Your task to perform on an android device: View the shopping cart on amazon. Image 0: 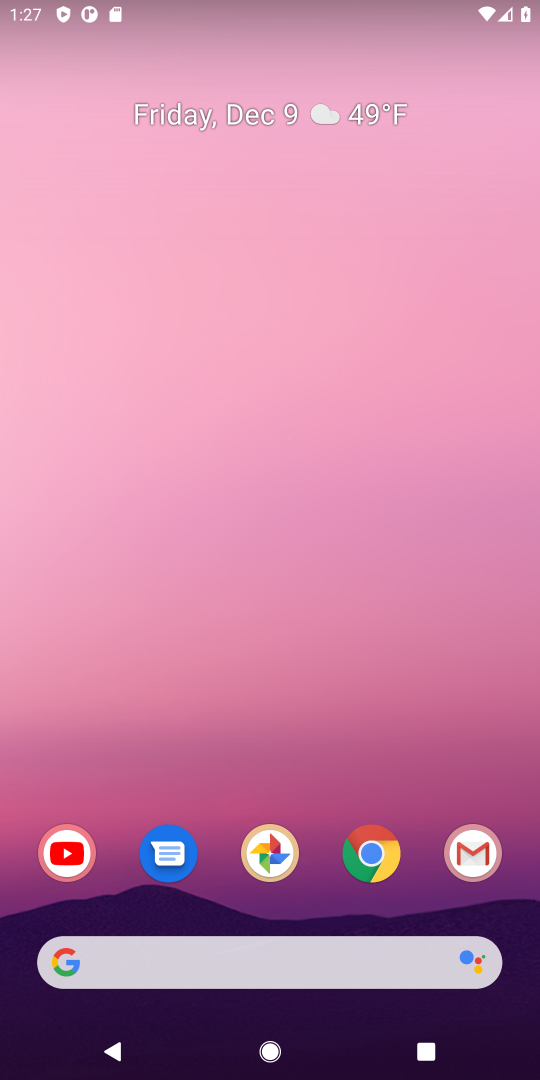
Step 0: drag from (229, 953) to (310, 378)
Your task to perform on an android device: View the shopping cart on amazon. Image 1: 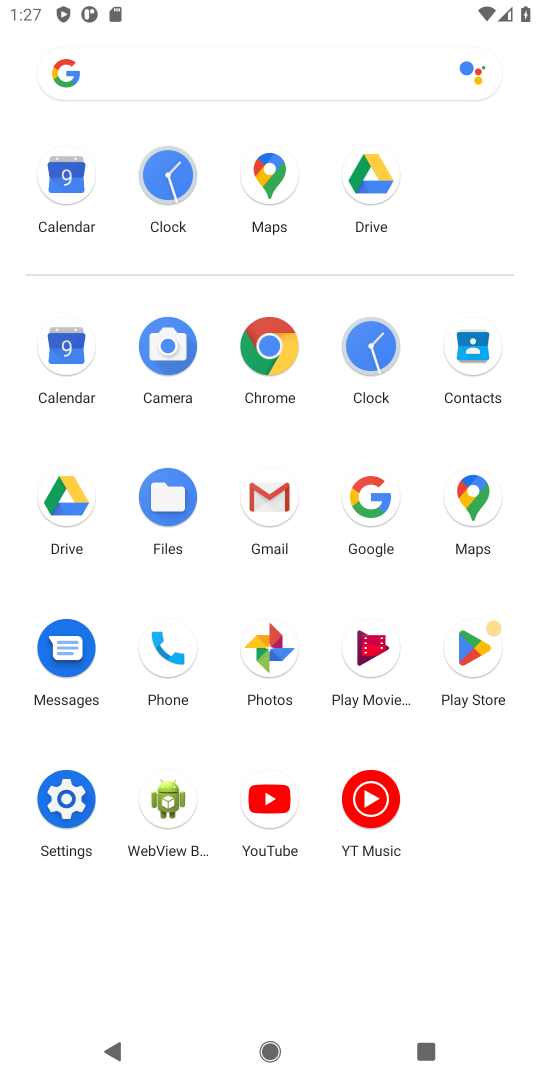
Step 1: click (365, 499)
Your task to perform on an android device: View the shopping cart on amazon. Image 2: 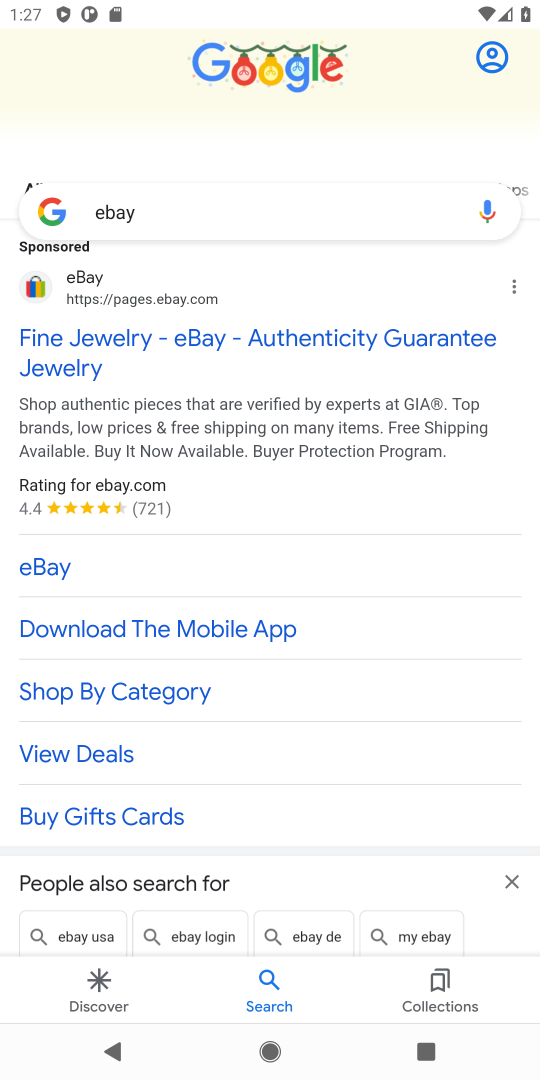
Step 2: click (129, 218)
Your task to perform on an android device: View the shopping cart on amazon. Image 3: 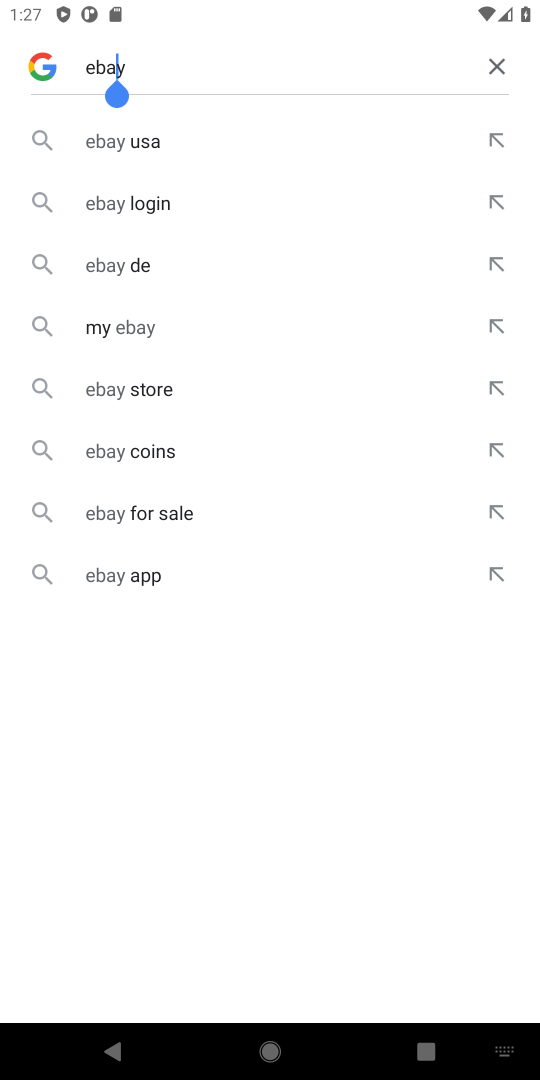
Step 3: click (508, 59)
Your task to perform on an android device: View the shopping cart on amazon. Image 4: 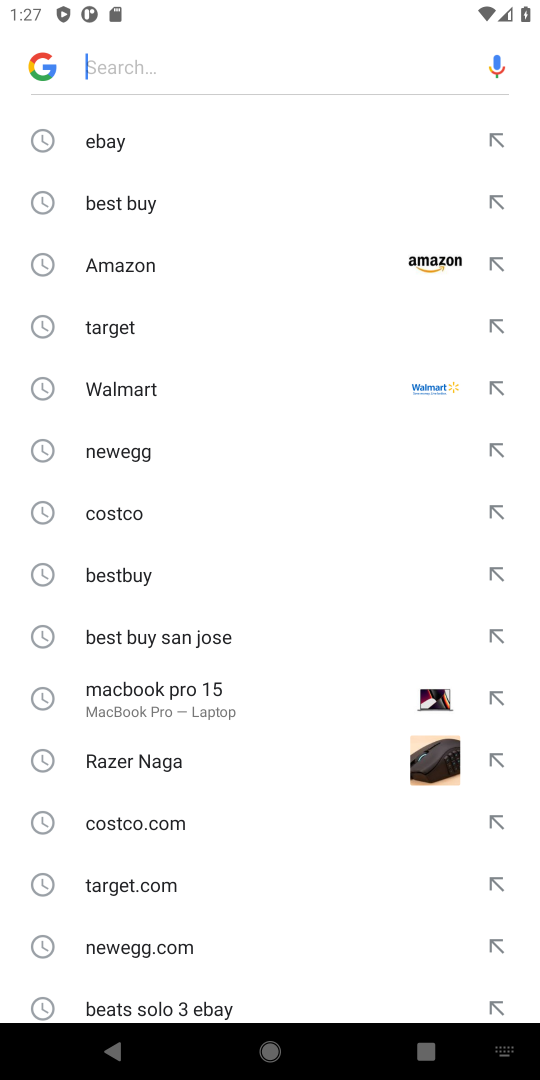
Step 4: click (126, 263)
Your task to perform on an android device: View the shopping cart on amazon. Image 5: 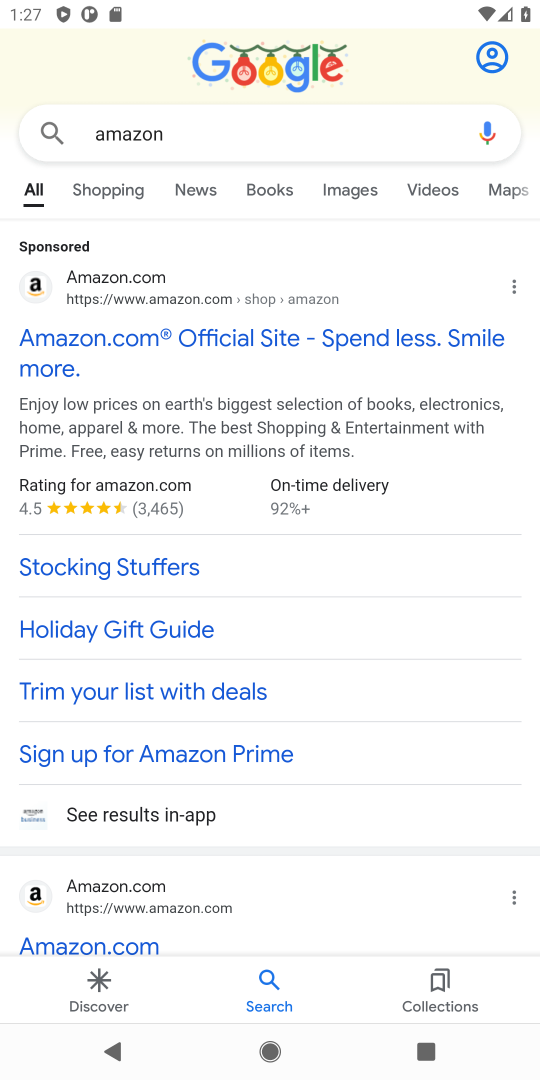
Step 5: click (140, 333)
Your task to perform on an android device: View the shopping cart on amazon. Image 6: 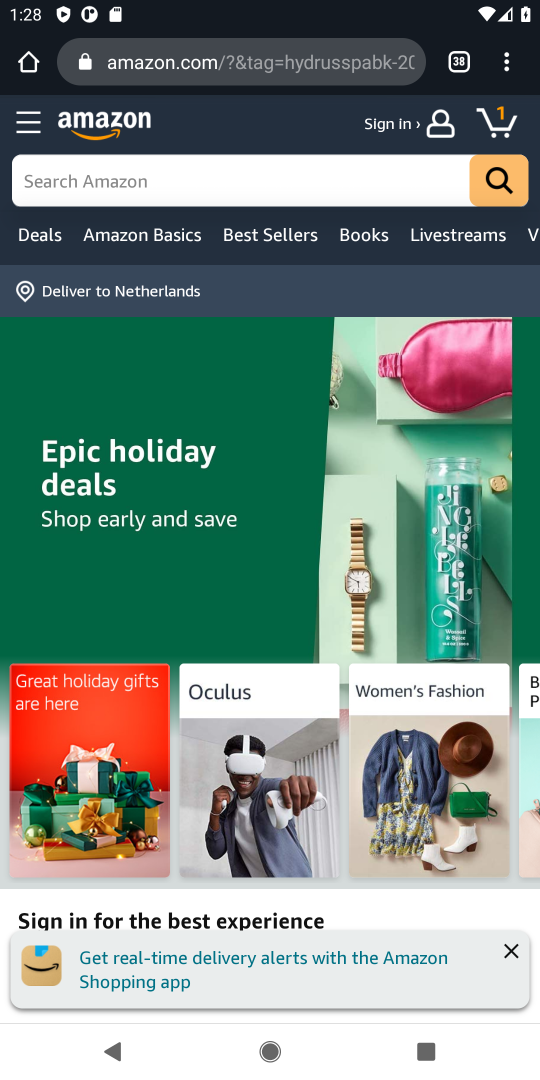
Step 6: click (493, 115)
Your task to perform on an android device: View the shopping cart on amazon. Image 7: 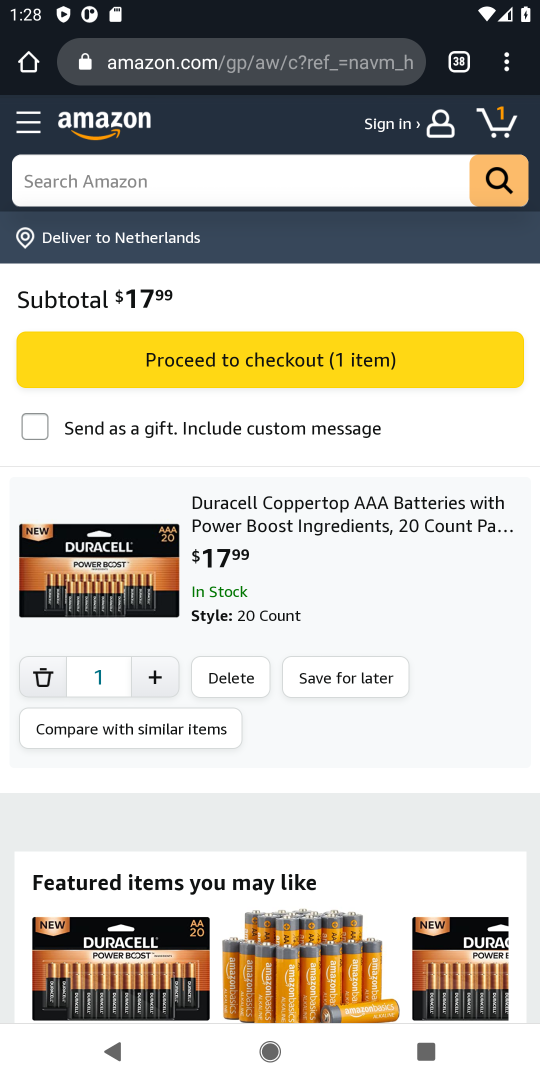
Step 7: task complete